Your task to perform on an android device: Open the stopwatch Image 0: 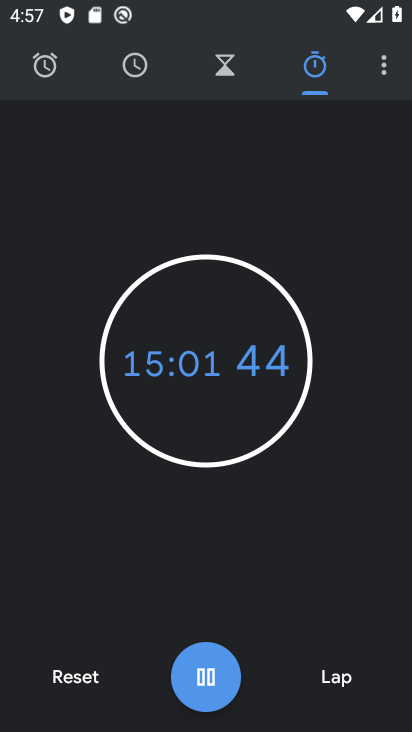
Step 0: click (320, 77)
Your task to perform on an android device: Open the stopwatch Image 1: 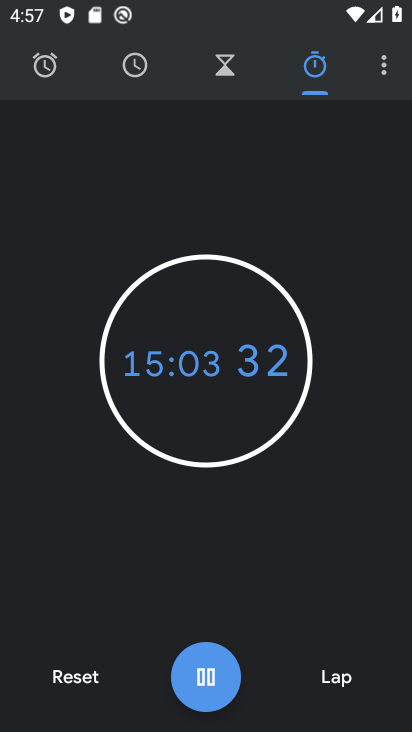
Step 1: task complete